Your task to perform on an android device: toggle javascript in the chrome app Image 0: 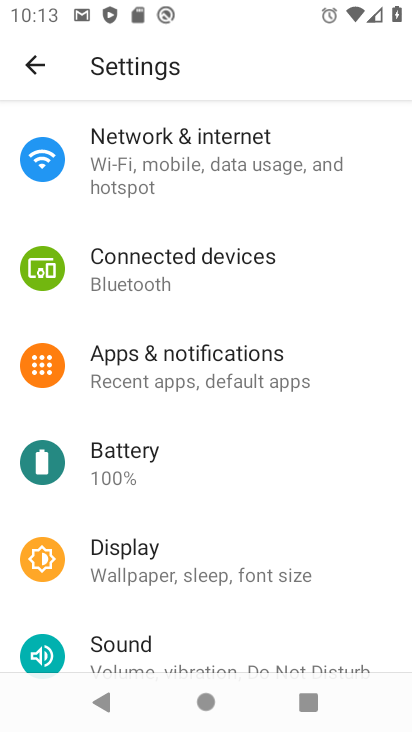
Step 0: drag from (81, 575) to (264, 131)
Your task to perform on an android device: toggle javascript in the chrome app Image 1: 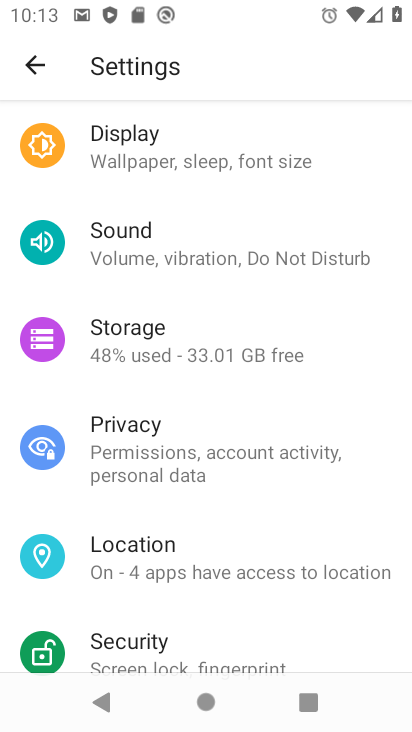
Step 1: press home button
Your task to perform on an android device: toggle javascript in the chrome app Image 2: 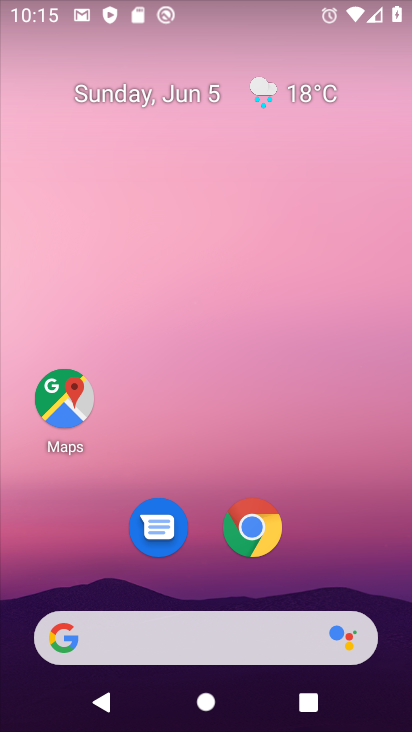
Step 2: click (270, 527)
Your task to perform on an android device: toggle javascript in the chrome app Image 3: 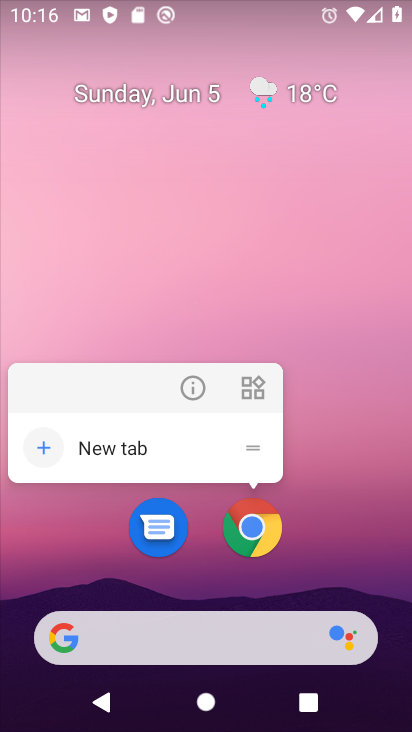
Step 3: click (247, 516)
Your task to perform on an android device: toggle javascript in the chrome app Image 4: 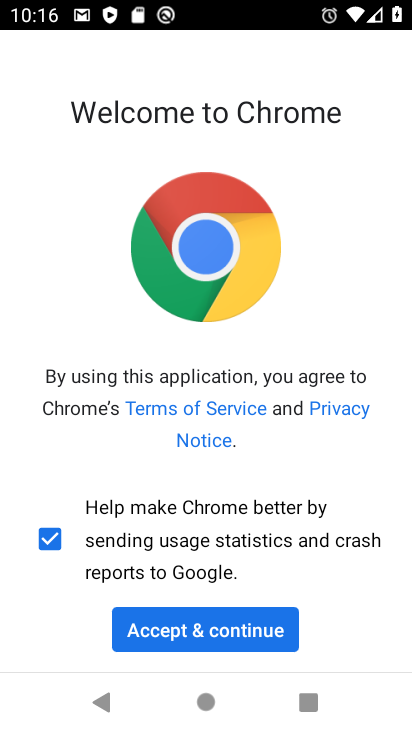
Step 4: click (193, 636)
Your task to perform on an android device: toggle javascript in the chrome app Image 5: 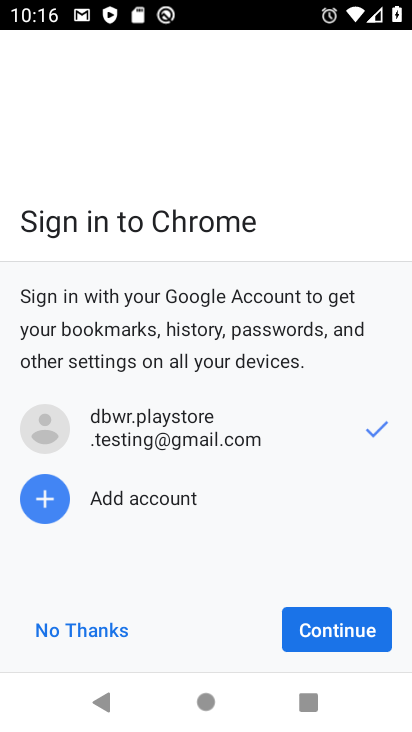
Step 5: click (62, 631)
Your task to perform on an android device: toggle javascript in the chrome app Image 6: 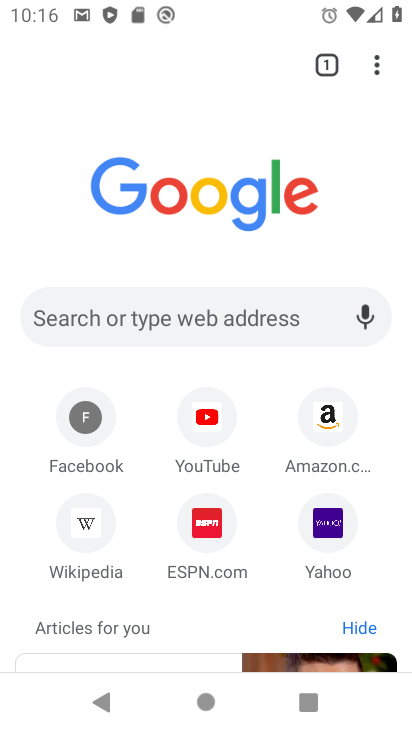
Step 6: click (375, 66)
Your task to perform on an android device: toggle javascript in the chrome app Image 7: 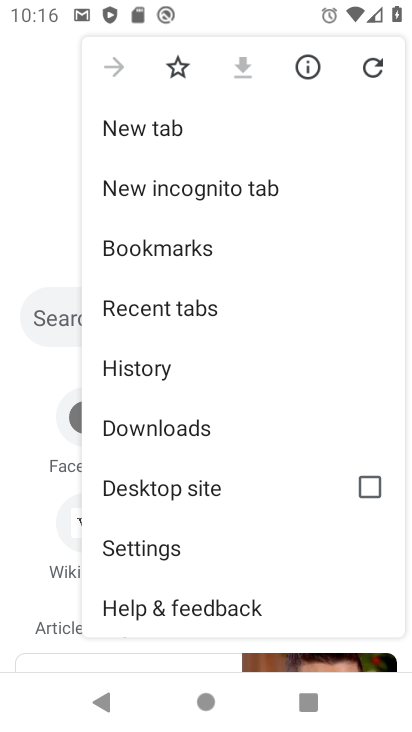
Step 7: click (145, 559)
Your task to perform on an android device: toggle javascript in the chrome app Image 8: 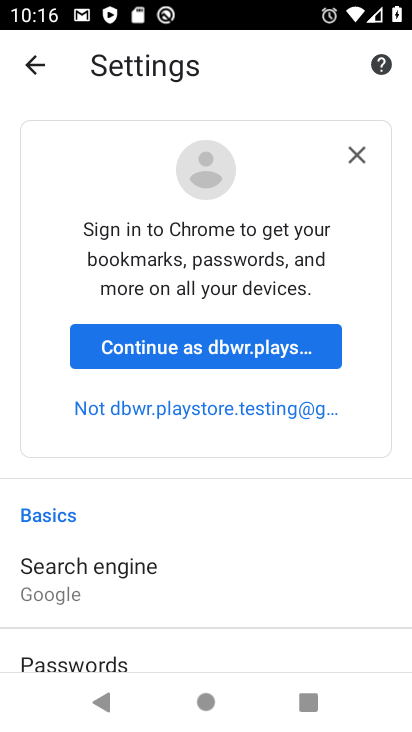
Step 8: drag from (35, 476) to (195, 65)
Your task to perform on an android device: toggle javascript in the chrome app Image 9: 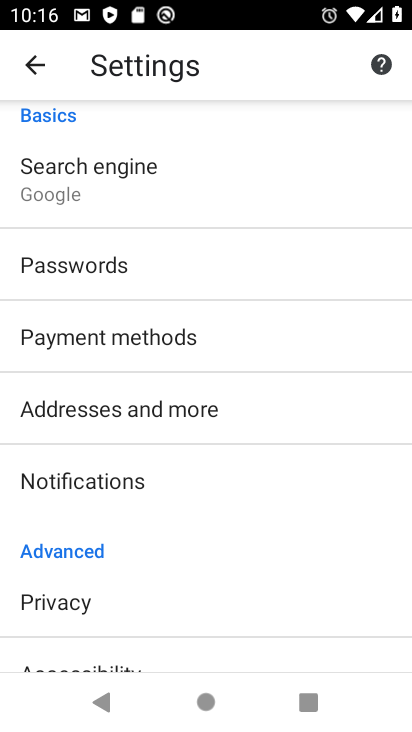
Step 9: drag from (98, 523) to (273, 152)
Your task to perform on an android device: toggle javascript in the chrome app Image 10: 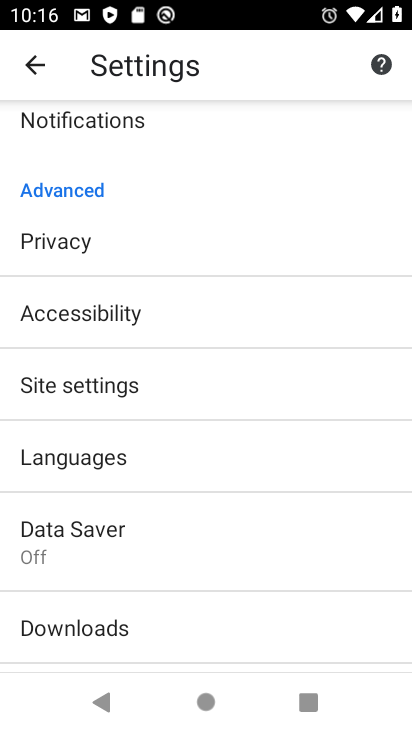
Step 10: click (128, 380)
Your task to perform on an android device: toggle javascript in the chrome app Image 11: 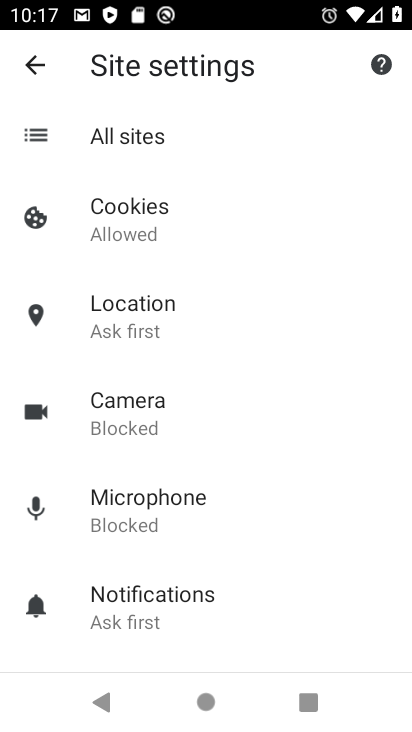
Step 11: drag from (41, 577) to (272, 129)
Your task to perform on an android device: toggle javascript in the chrome app Image 12: 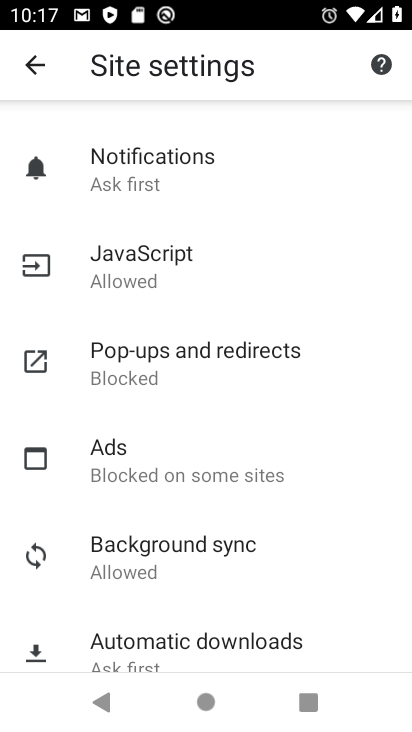
Step 12: click (133, 275)
Your task to perform on an android device: toggle javascript in the chrome app Image 13: 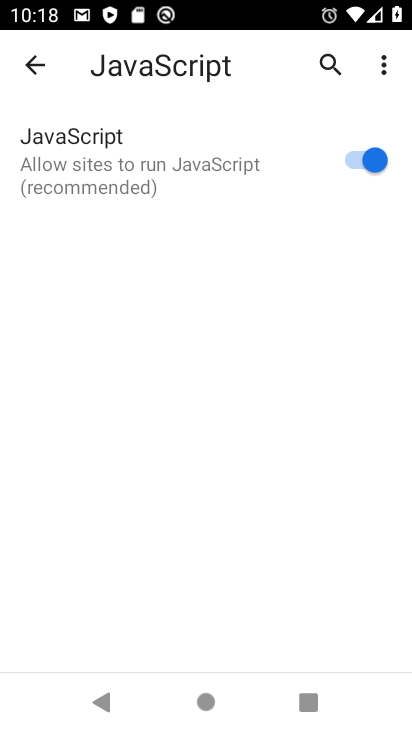
Step 13: click (371, 160)
Your task to perform on an android device: toggle javascript in the chrome app Image 14: 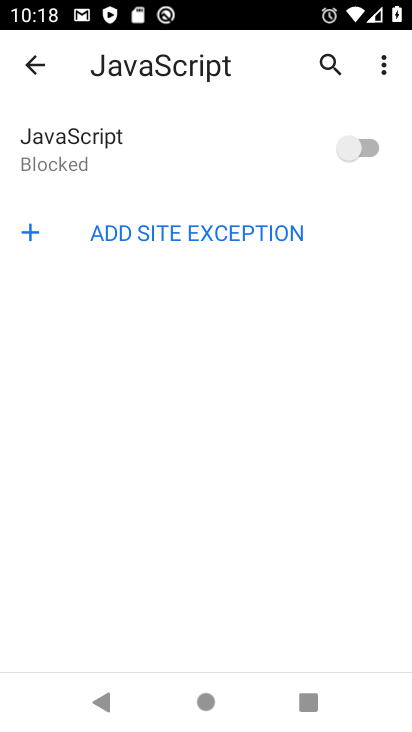
Step 14: task complete